Your task to perform on an android device: Go to Google maps Image 0: 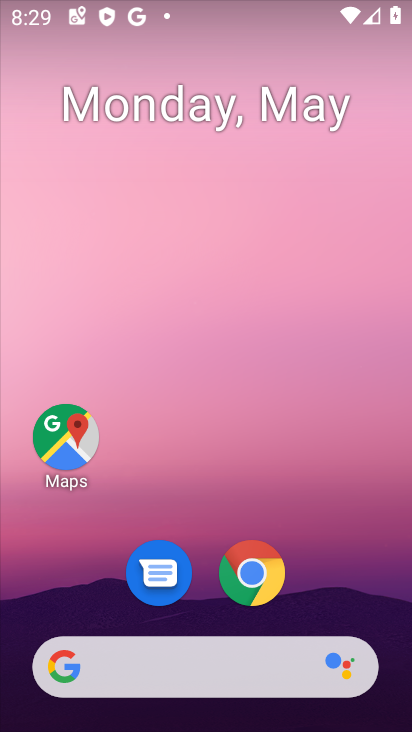
Step 0: drag from (229, 657) to (271, 52)
Your task to perform on an android device: Go to Google maps Image 1: 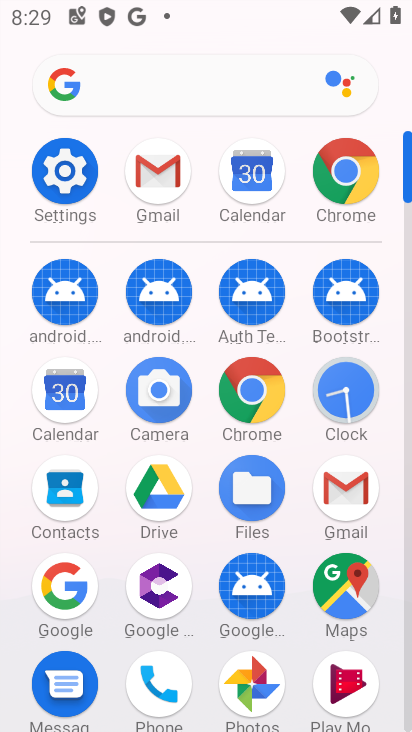
Step 1: click (332, 603)
Your task to perform on an android device: Go to Google maps Image 2: 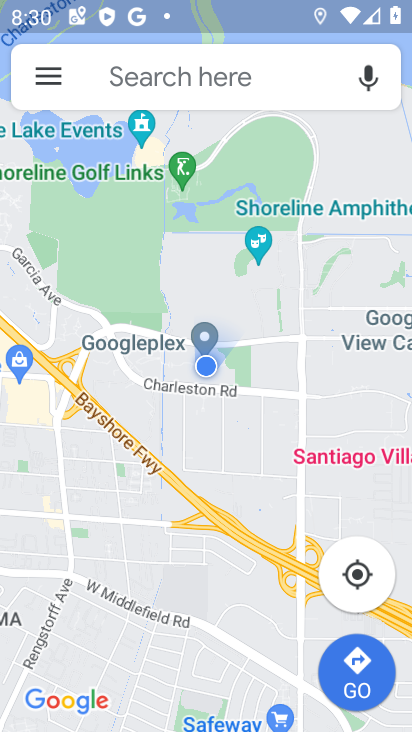
Step 2: task complete